Your task to perform on an android device: turn on airplane mode Image 0: 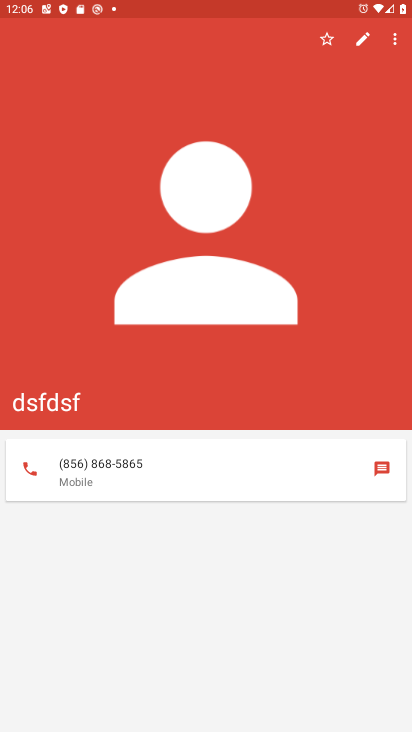
Step 0: press home button
Your task to perform on an android device: turn on airplane mode Image 1: 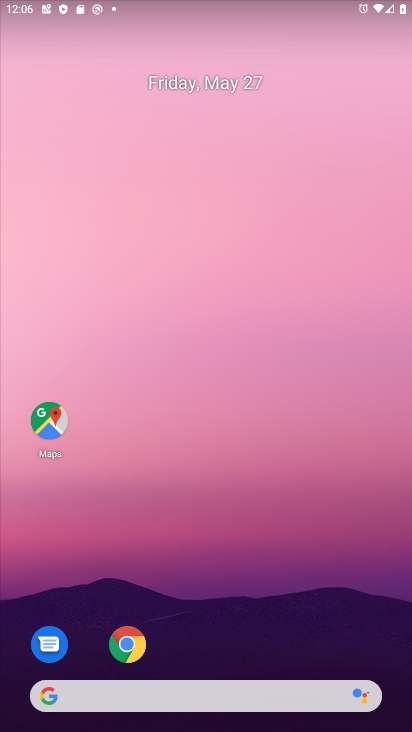
Step 1: drag from (192, 592) to (161, 144)
Your task to perform on an android device: turn on airplane mode Image 2: 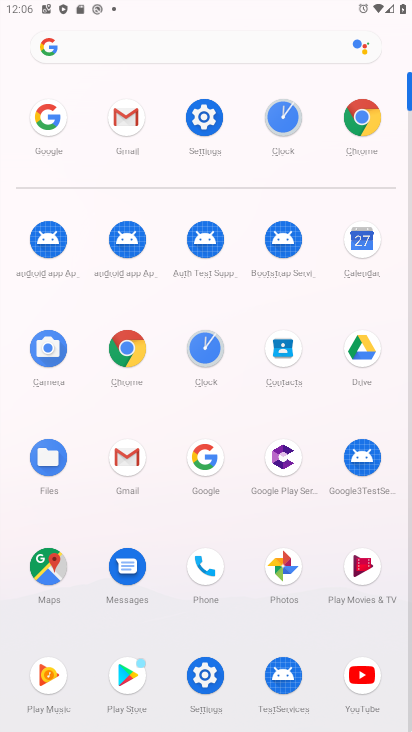
Step 2: click (185, 123)
Your task to perform on an android device: turn on airplane mode Image 3: 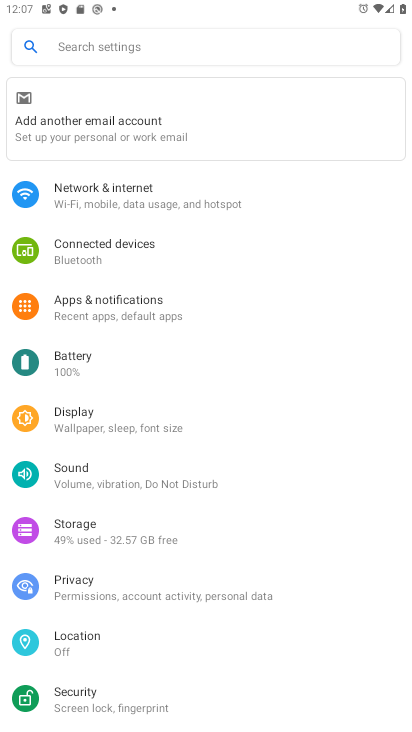
Step 3: click (142, 194)
Your task to perform on an android device: turn on airplane mode Image 4: 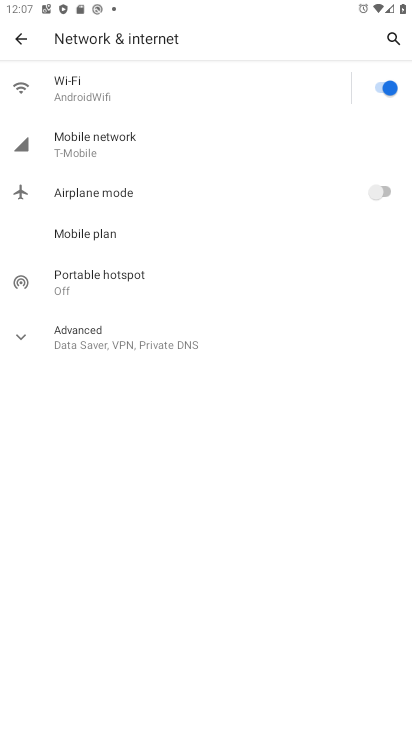
Step 4: click (380, 181)
Your task to perform on an android device: turn on airplane mode Image 5: 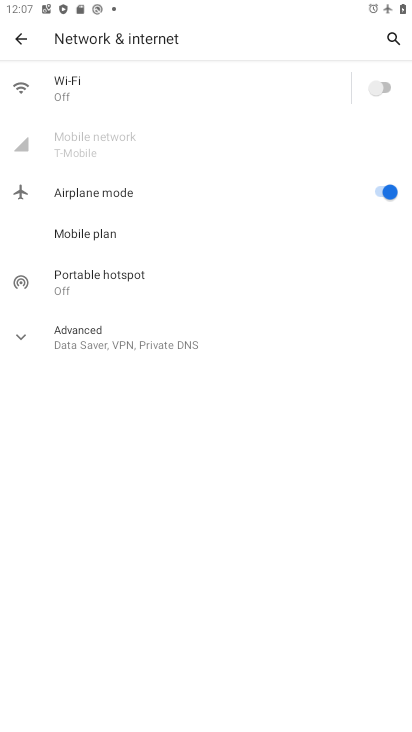
Step 5: task complete